Your task to perform on an android device: Go to Google Image 0: 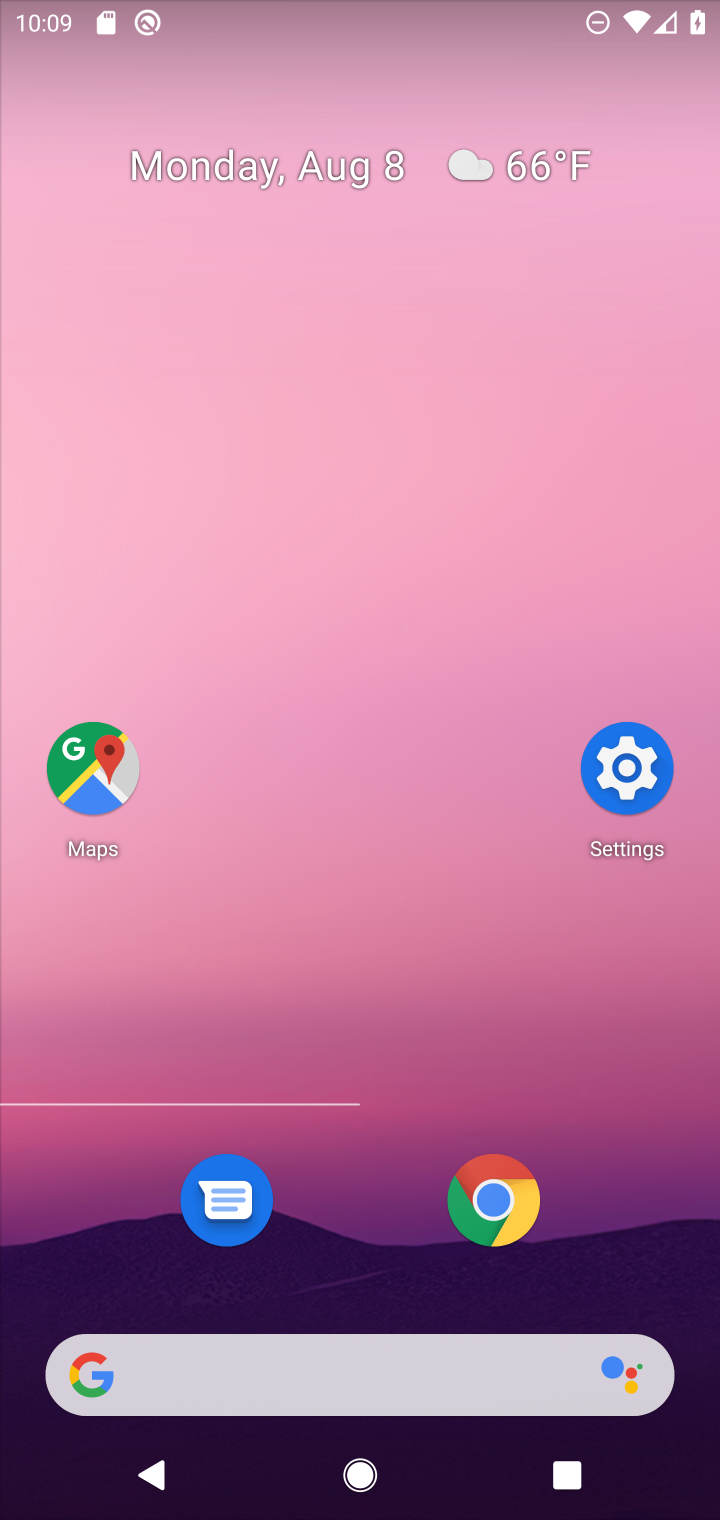
Step 0: press home button
Your task to perform on an android device: Go to Google Image 1: 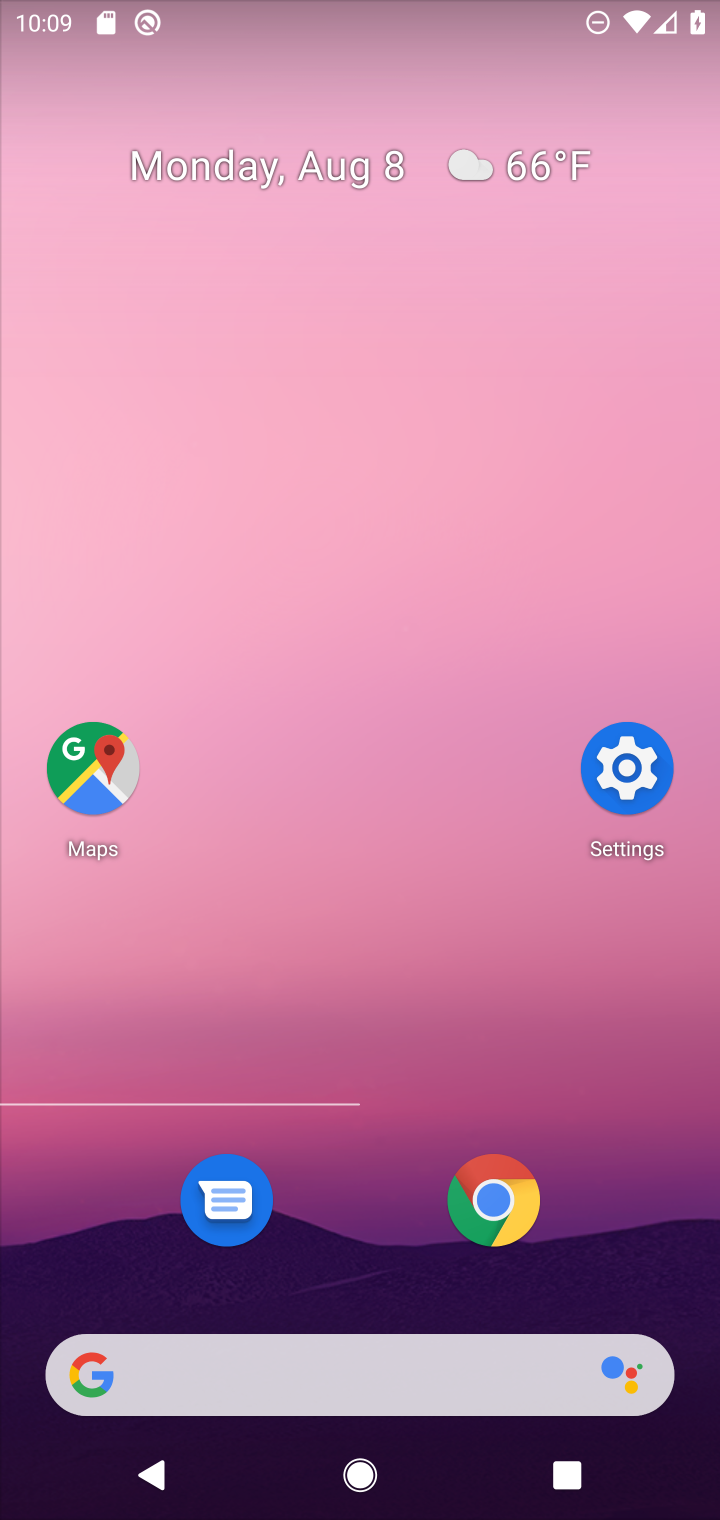
Step 1: drag from (373, 1223) to (478, 206)
Your task to perform on an android device: Go to Google Image 2: 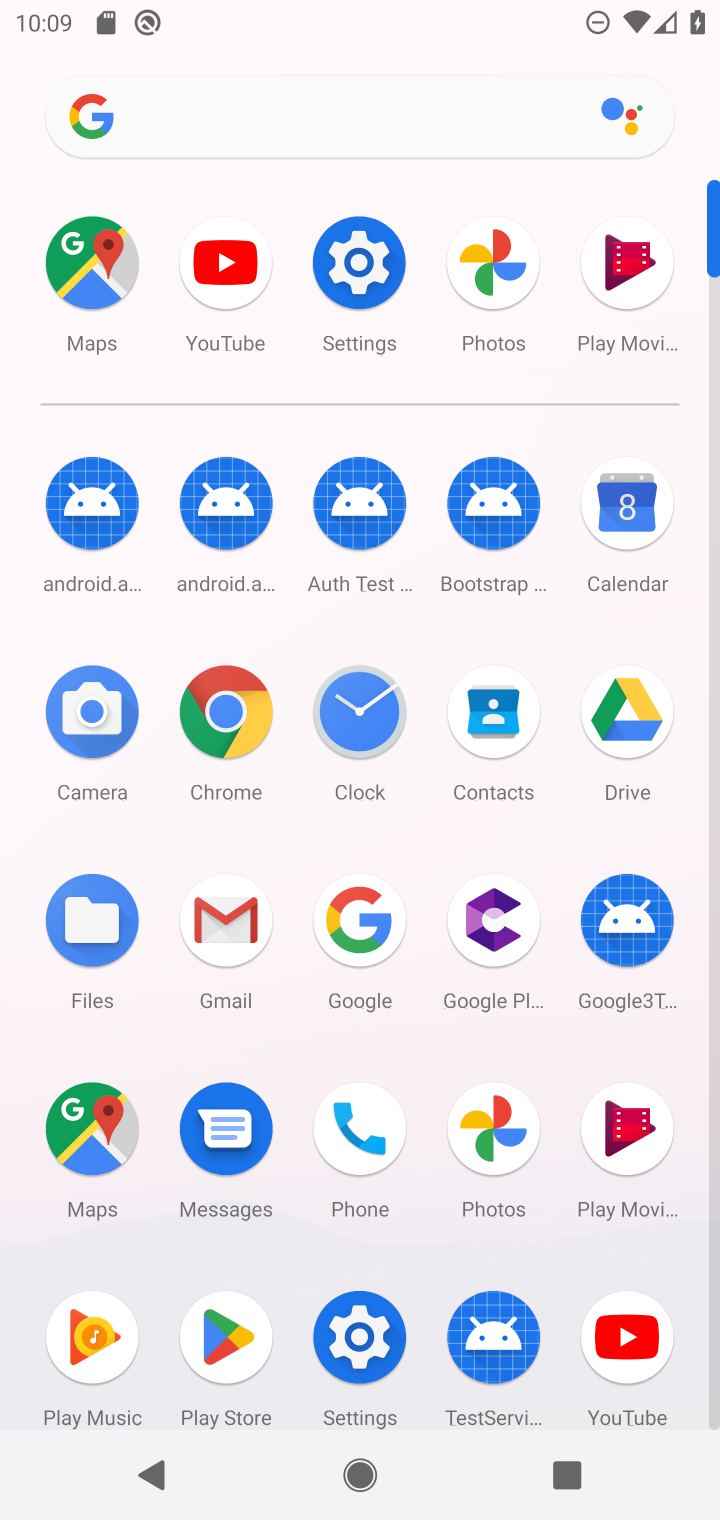
Step 2: click (363, 928)
Your task to perform on an android device: Go to Google Image 3: 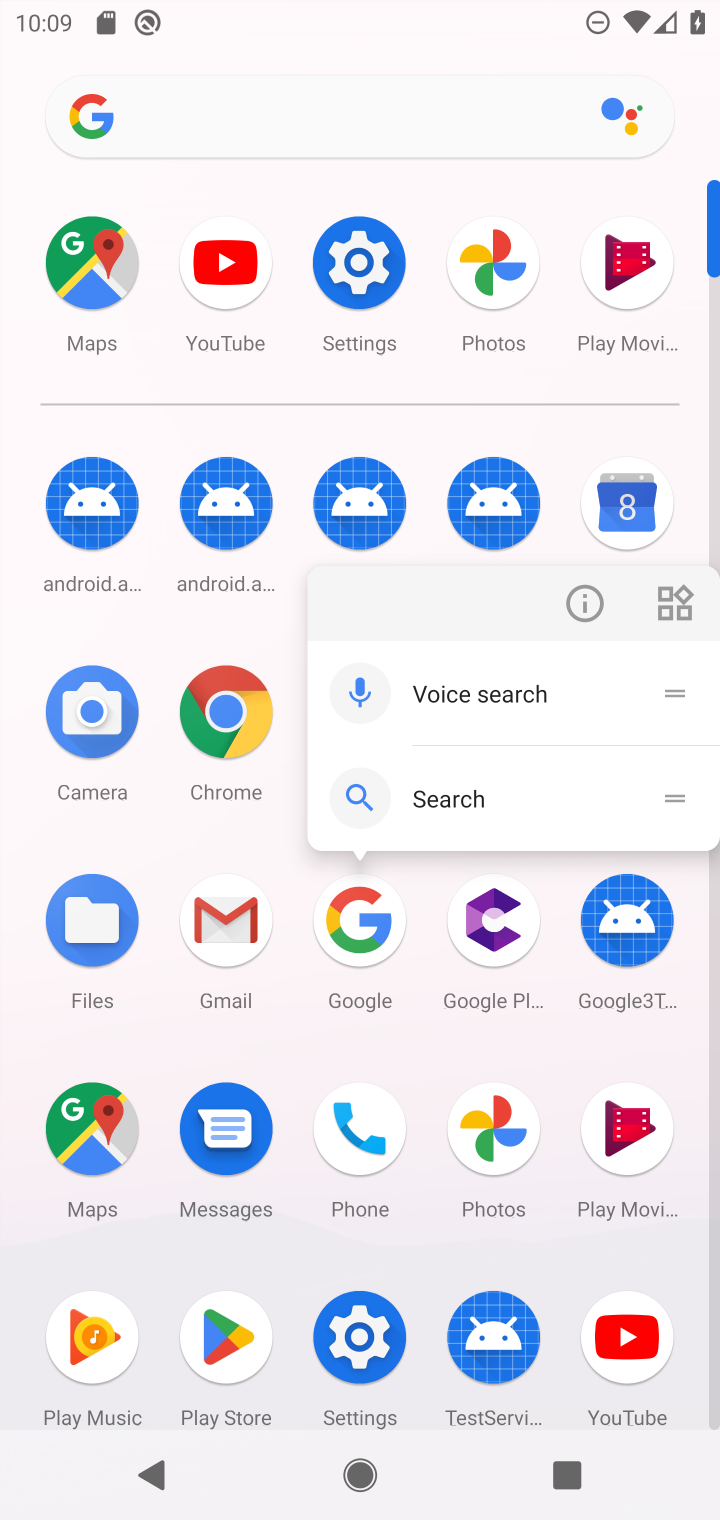
Step 3: click (363, 927)
Your task to perform on an android device: Go to Google Image 4: 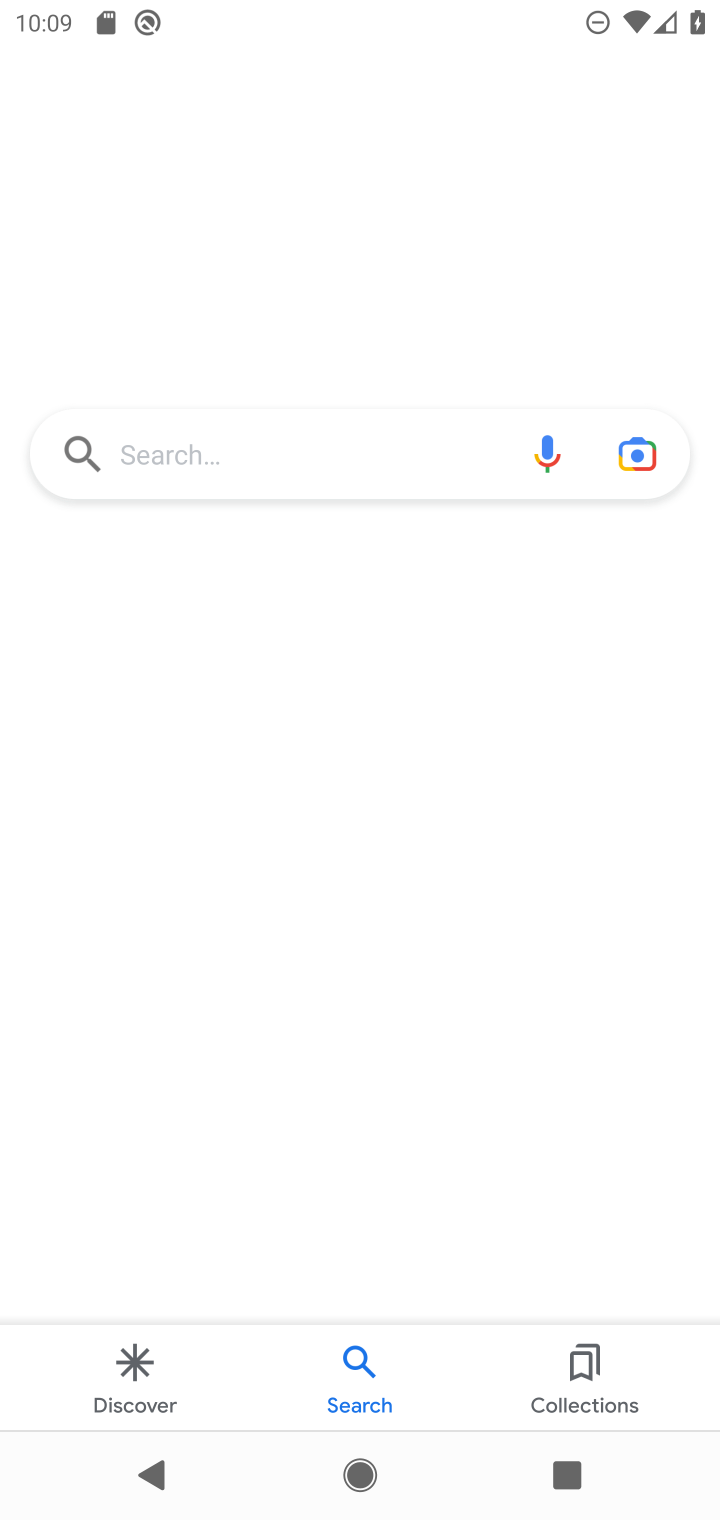
Step 4: task complete